Your task to perform on an android device: set an alarm Image 0: 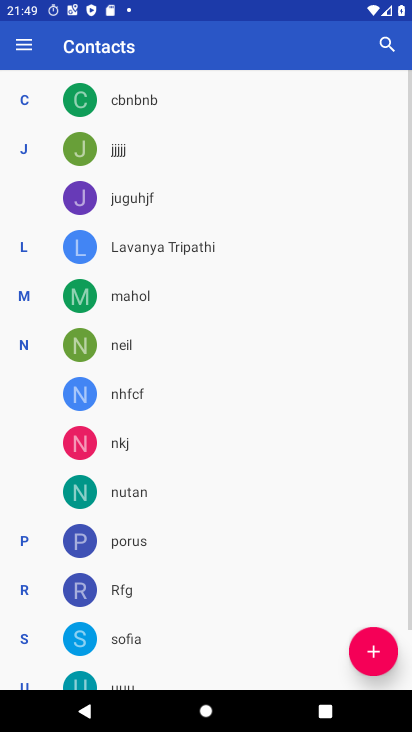
Step 0: press home button
Your task to perform on an android device: set an alarm Image 1: 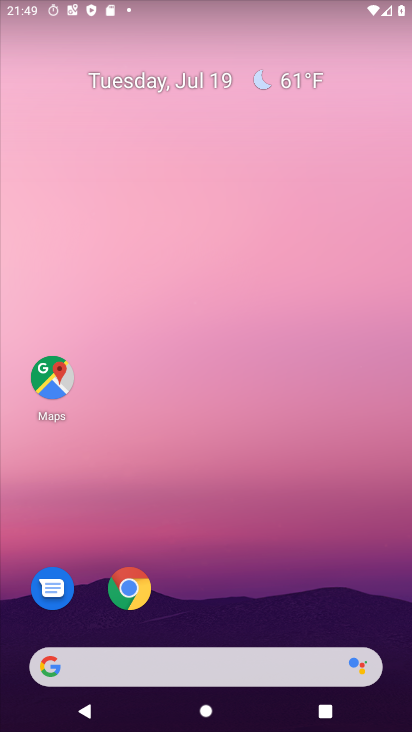
Step 1: drag from (212, 628) to (230, 29)
Your task to perform on an android device: set an alarm Image 2: 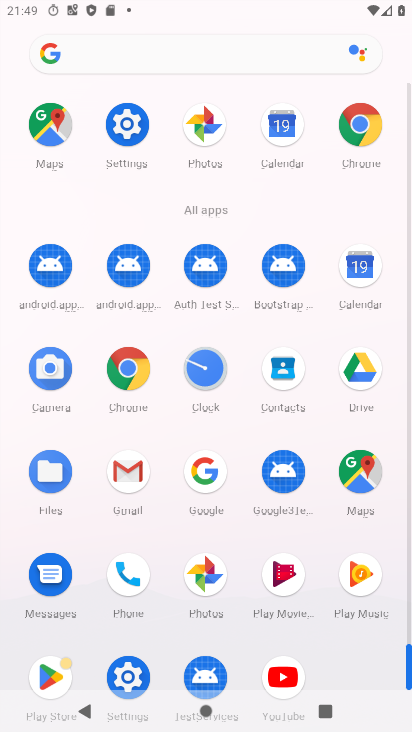
Step 2: click (196, 361)
Your task to perform on an android device: set an alarm Image 3: 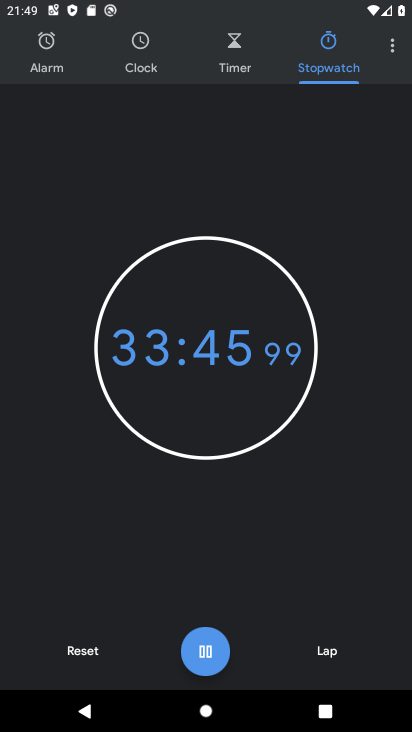
Step 3: click (85, 654)
Your task to perform on an android device: set an alarm Image 4: 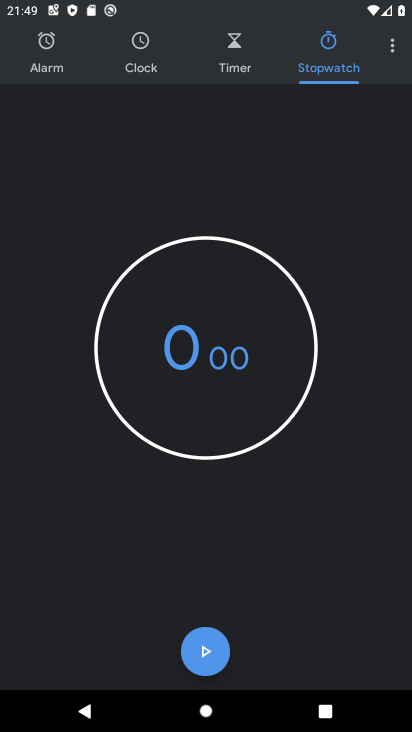
Step 4: click (54, 54)
Your task to perform on an android device: set an alarm Image 5: 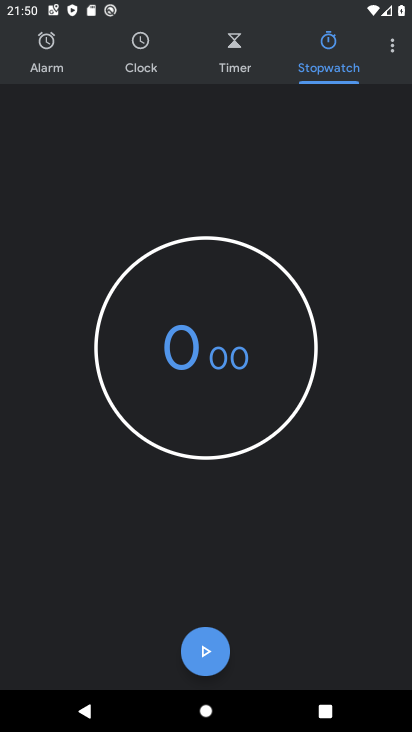
Step 5: click (51, 40)
Your task to perform on an android device: set an alarm Image 6: 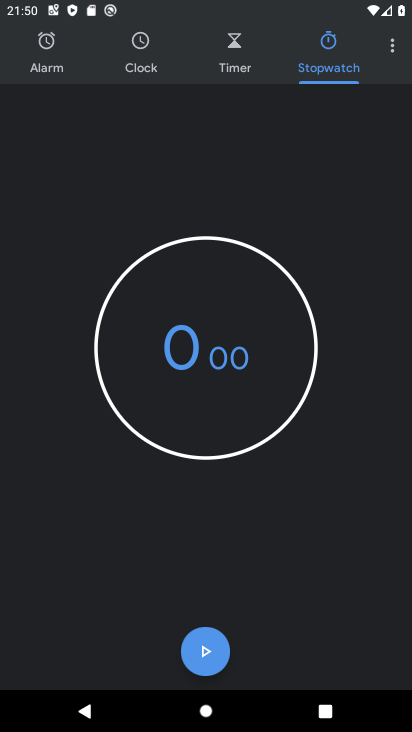
Step 6: click (40, 56)
Your task to perform on an android device: set an alarm Image 7: 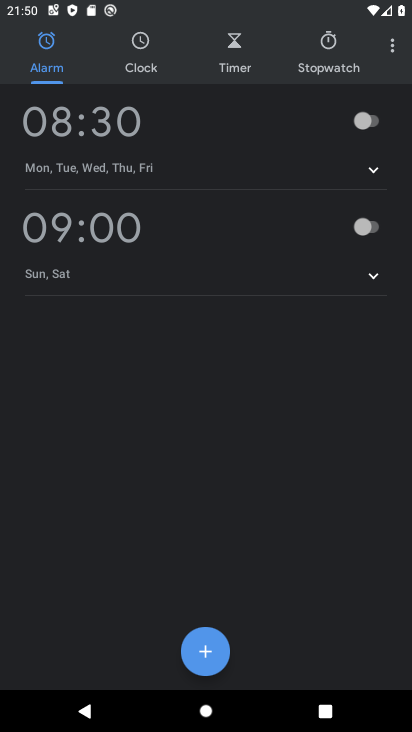
Step 7: click (367, 117)
Your task to perform on an android device: set an alarm Image 8: 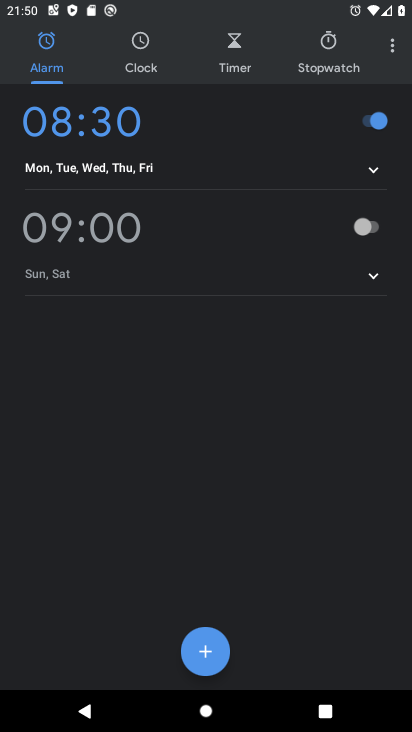
Step 8: task complete